Your task to perform on an android device: turn notification dots on Image 0: 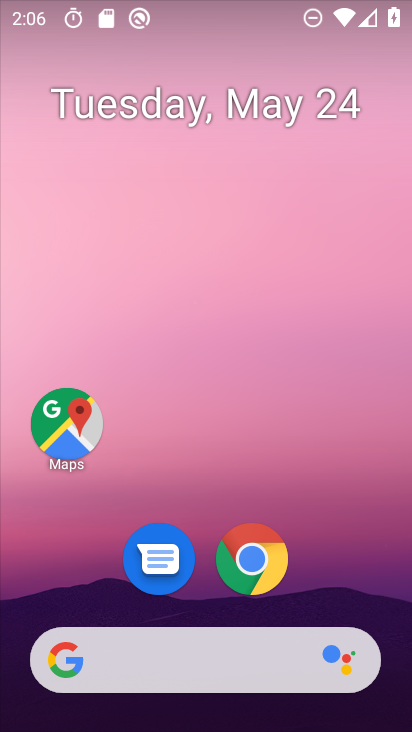
Step 0: drag from (404, 705) to (326, 34)
Your task to perform on an android device: turn notification dots on Image 1: 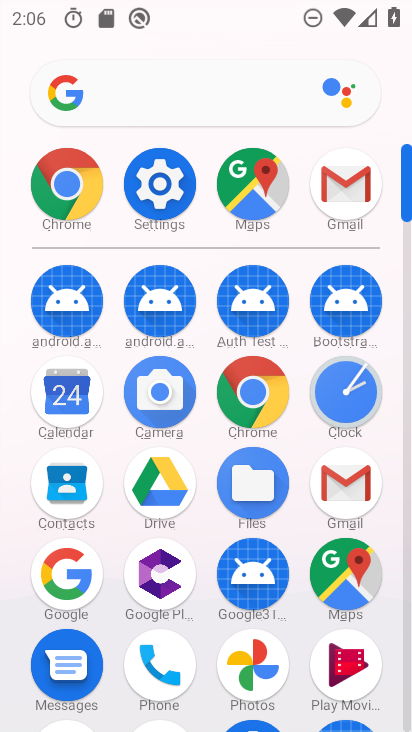
Step 1: click (174, 184)
Your task to perform on an android device: turn notification dots on Image 2: 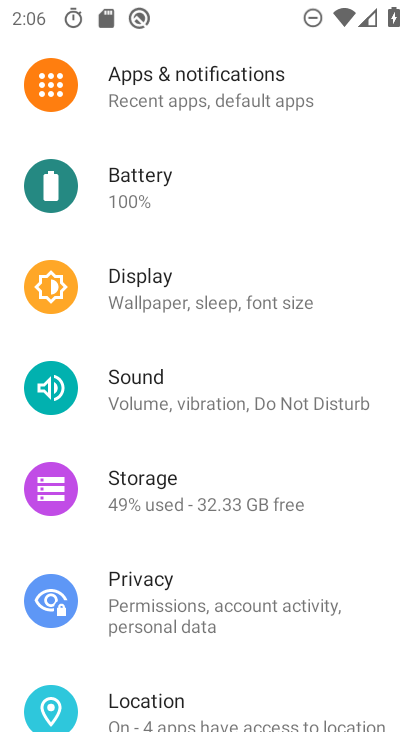
Step 2: click (197, 82)
Your task to perform on an android device: turn notification dots on Image 3: 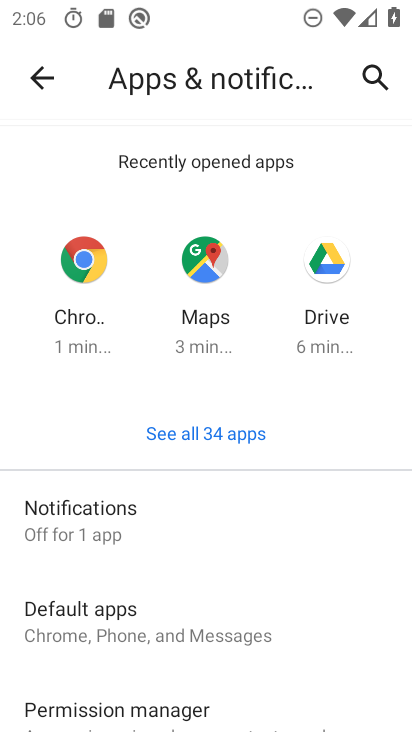
Step 3: click (78, 516)
Your task to perform on an android device: turn notification dots on Image 4: 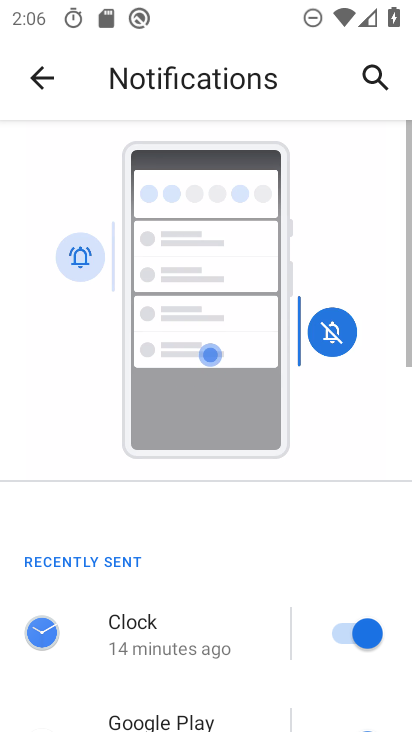
Step 4: drag from (258, 613) to (256, 113)
Your task to perform on an android device: turn notification dots on Image 5: 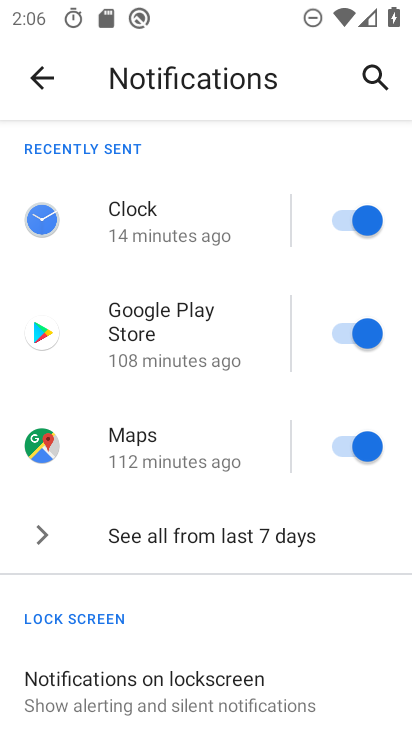
Step 5: drag from (241, 650) to (244, 344)
Your task to perform on an android device: turn notification dots on Image 6: 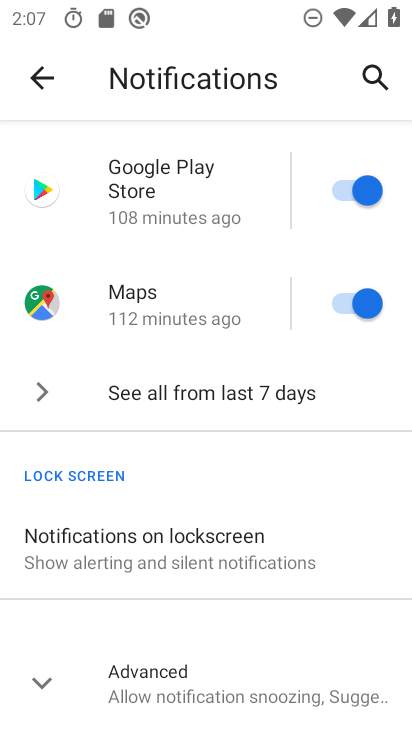
Step 6: click (170, 547)
Your task to perform on an android device: turn notification dots on Image 7: 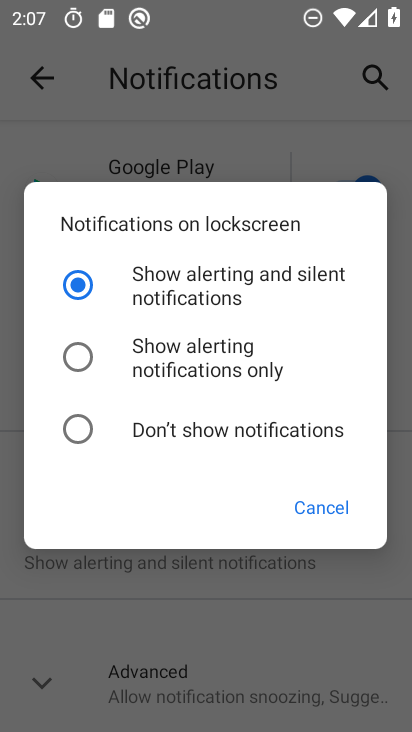
Step 7: click (316, 508)
Your task to perform on an android device: turn notification dots on Image 8: 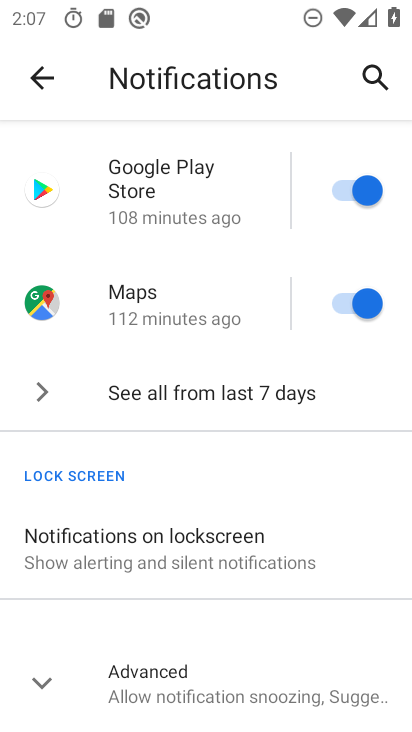
Step 8: click (45, 694)
Your task to perform on an android device: turn notification dots on Image 9: 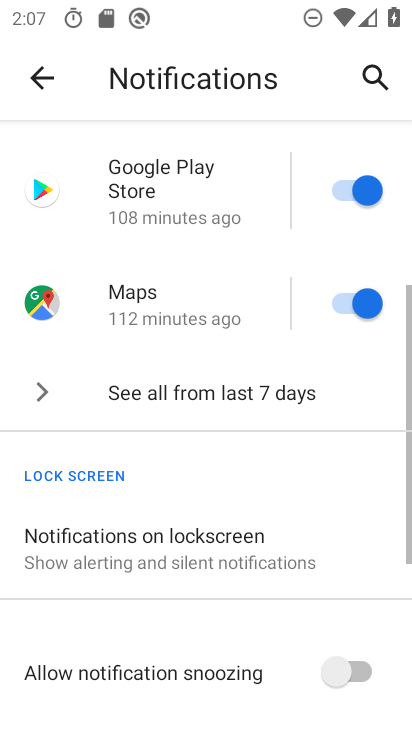
Step 9: task complete